Your task to perform on an android device: turn off priority inbox in the gmail app Image 0: 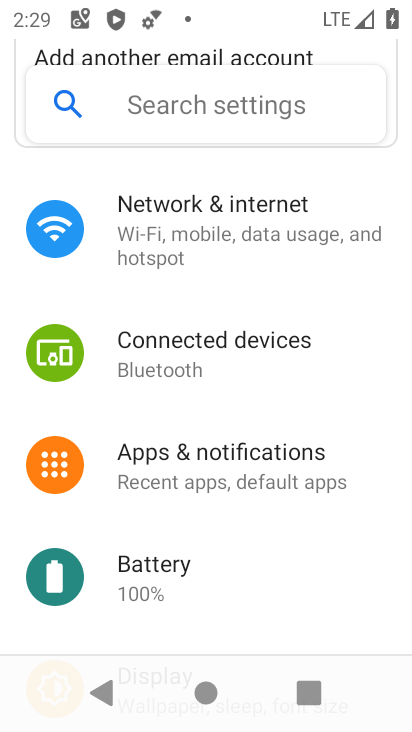
Step 0: press home button
Your task to perform on an android device: turn off priority inbox in the gmail app Image 1: 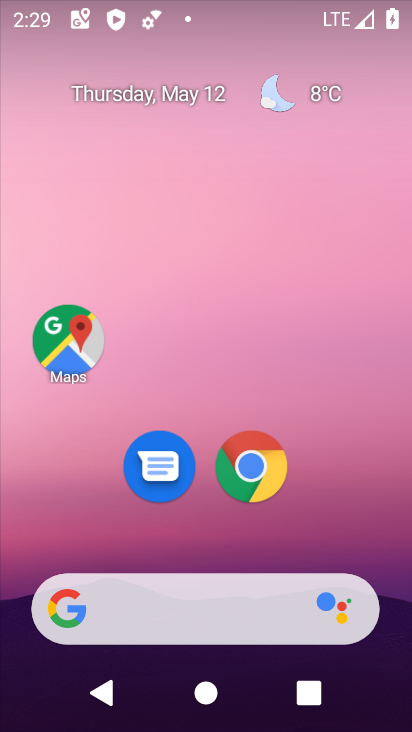
Step 1: drag from (345, 547) to (230, 141)
Your task to perform on an android device: turn off priority inbox in the gmail app Image 2: 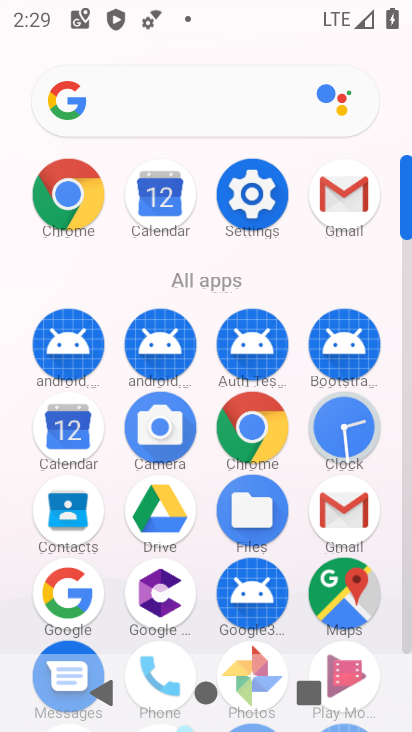
Step 2: click (345, 204)
Your task to perform on an android device: turn off priority inbox in the gmail app Image 3: 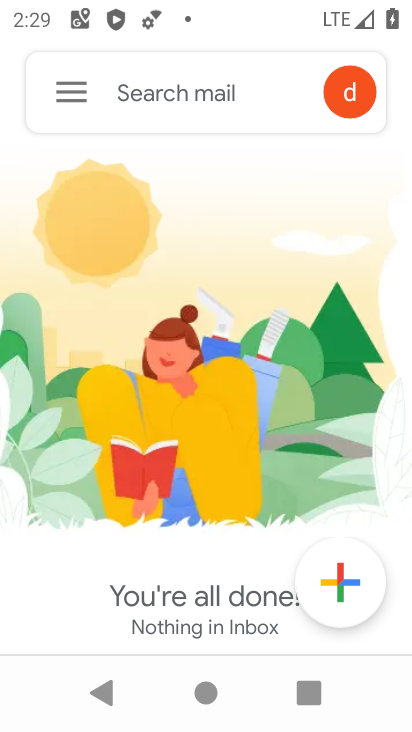
Step 3: click (80, 97)
Your task to perform on an android device: turn off priority inbox in the gmail app Image 4: 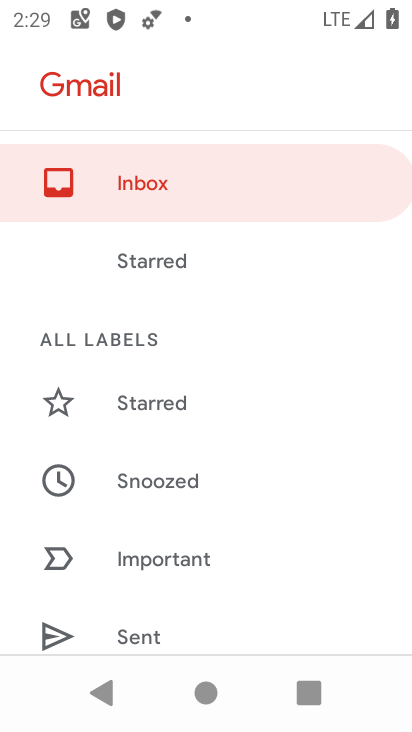
Step 4: drag from (182, 609) to (208, 250)
Your task to perform on an android device: turn off priority inbox in the gmail app Image 5: 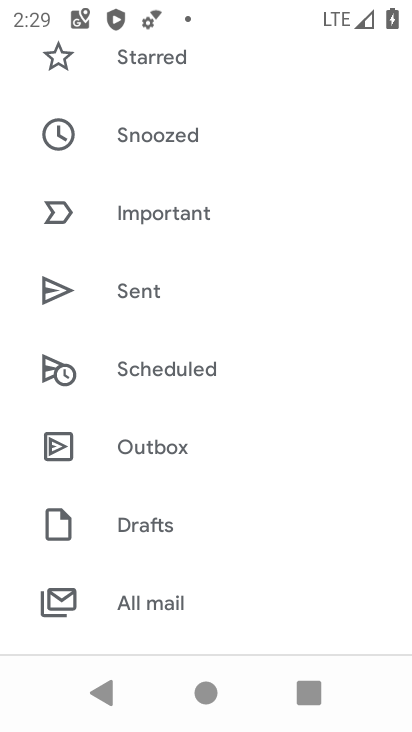
Step 5: drag from (189, 577) to (195, 242)
Your task to perform on an android device: turn off priority inbox in the gmail app Image 6: 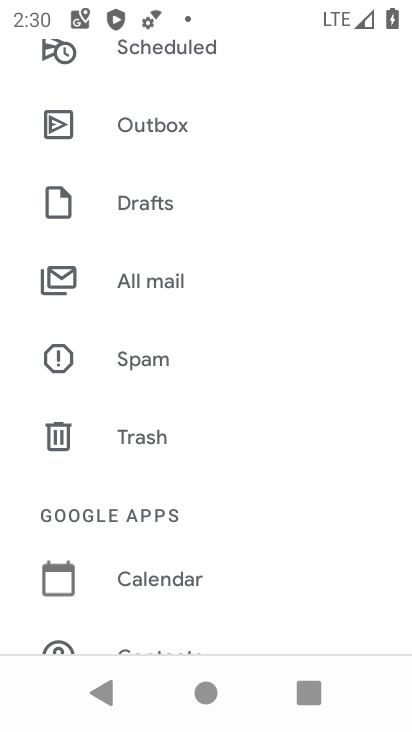
Step 6: drag from (135, 577) to (158, 246)
Your task to perform on an android device: turn off priority inbox in the gmail app Image 7: 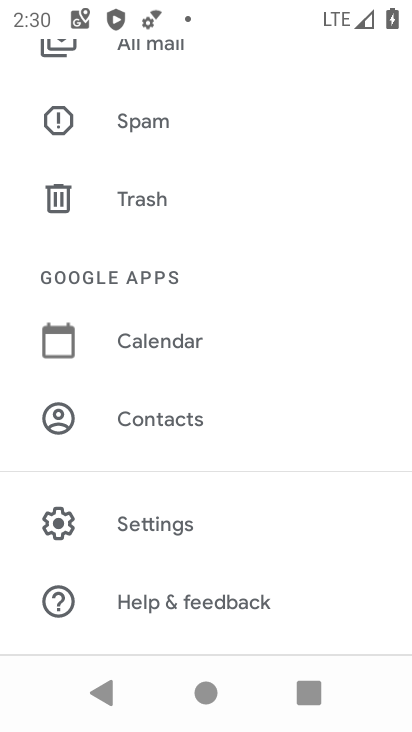
Step 7: click (128, 516)
Your task to perform on an android device: turn off priority inbox in the gmail app Image 8: 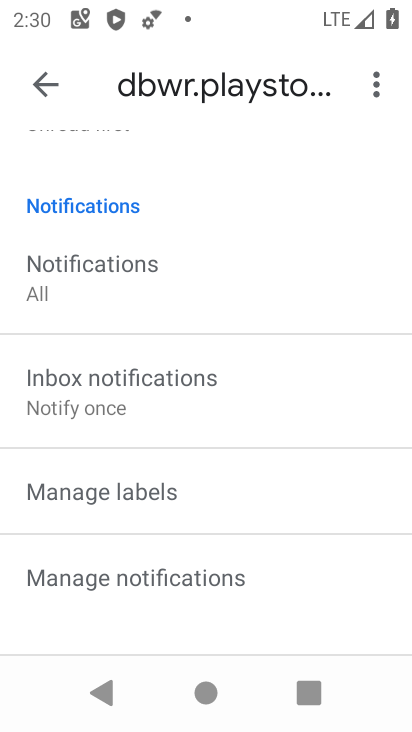
Step 8: click (170, 617)
Your task to perform on an android device: turn off priority inbox in the gmail app Image 9: 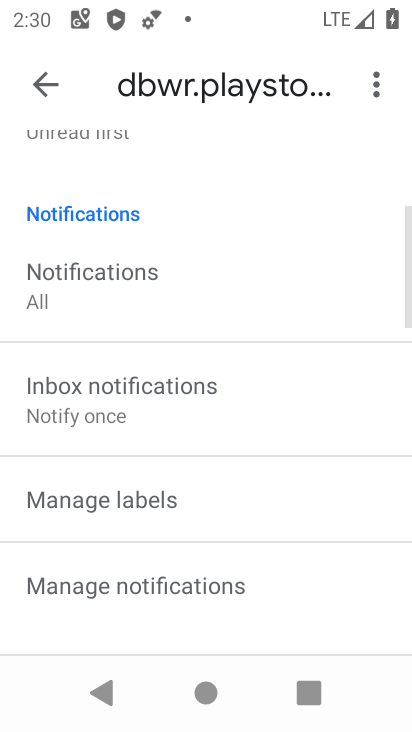
Step 9: drag from (216, 209) to (187, 513)
Your task to perform on an android device: turn off priority inbox in the gmail app Image 10: 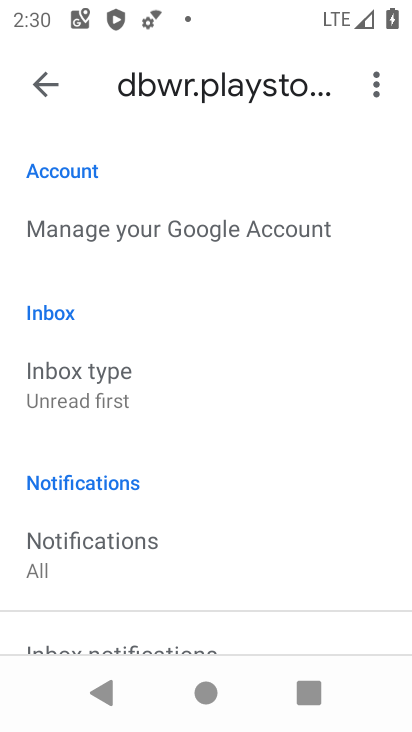
Step 10: click (103, 373)
Your task to perform on an android device: turn off priority inbox in the gmail app Image 11: 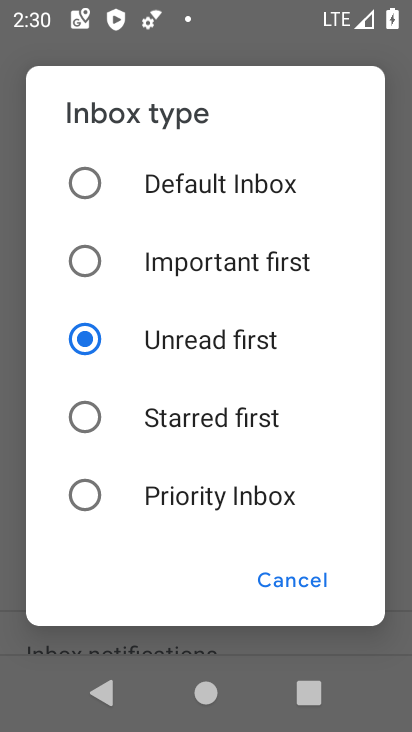
Step 11: task complete